Your task to perform on an android device: change timer sound Image 0: 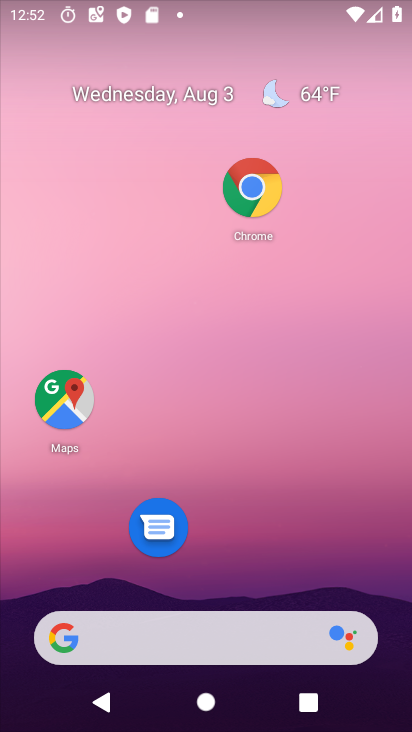
Step 0: drag from (214, 569) to (220, 32)
Your task to perform on an android device: change timer sound Image 1: 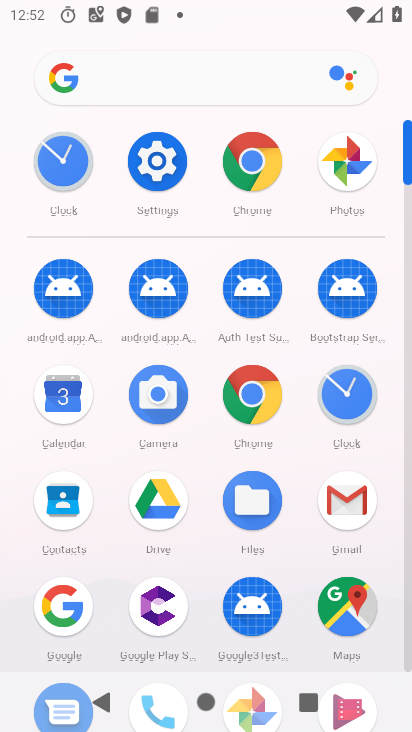
Step 1: click (161, 179)
Your task to perform on an android device: change timer sound Image 2: 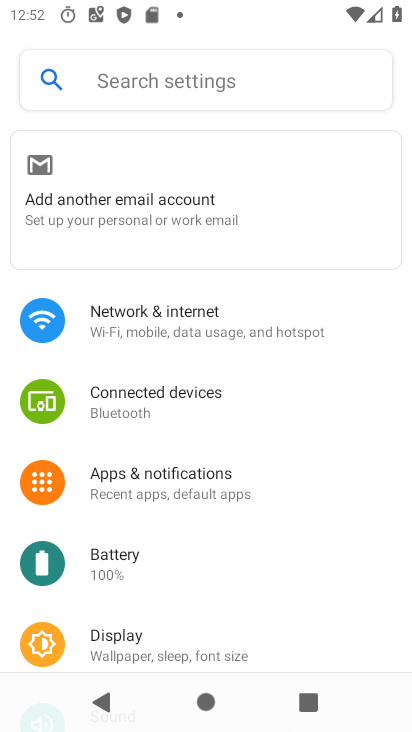
Step 2: press home button
Your task to perform on an android device: change timer sound Image 3: 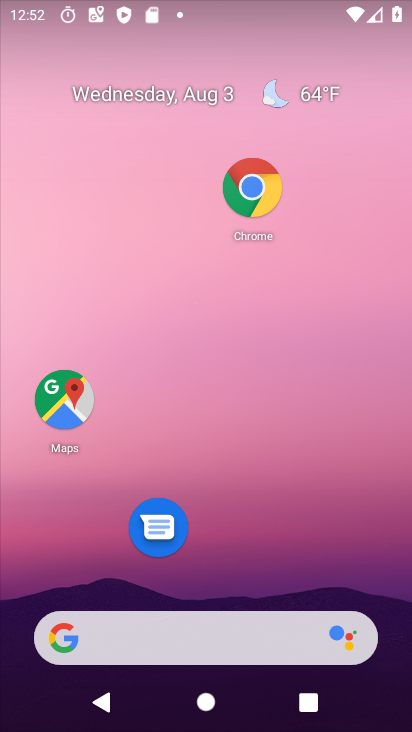
Step 3: drag from (263, 547) to (275, 152)
Your task to perform on an android device: change timer sound Image 4: 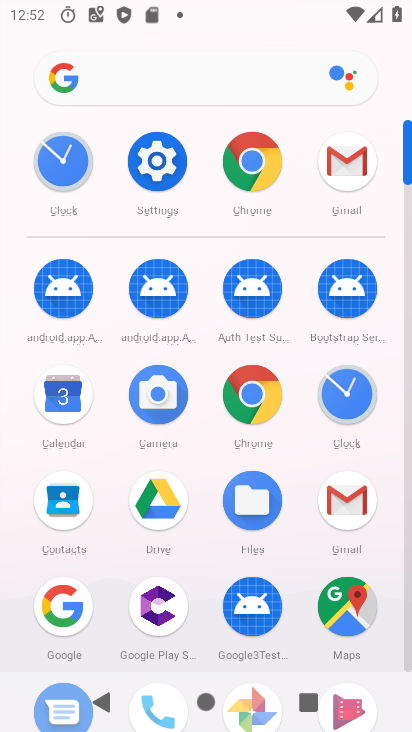
Step 4: drag from (231, 568) to (242, 381)
Your task to perform on an android device: change timer sound Image 5: 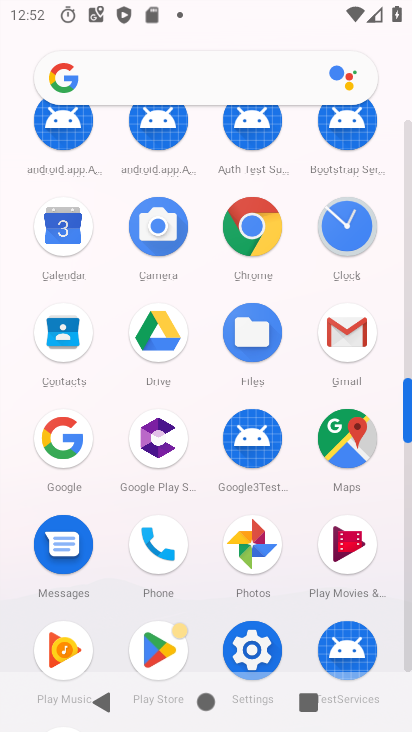
Step 5: click (369, 223)
Your task to perform on an android device: change timer sound Image 6: 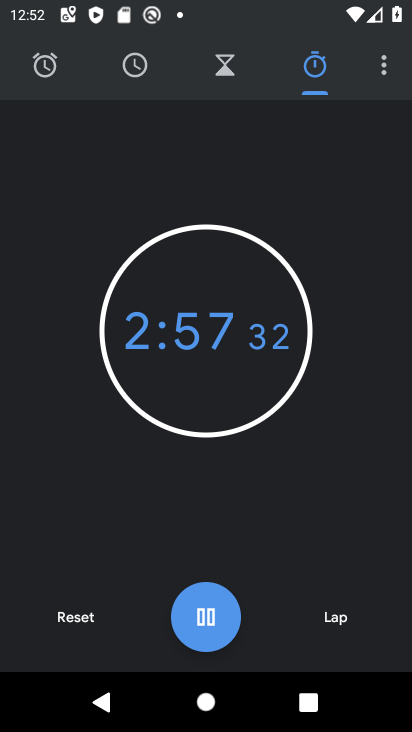
Step 6: click (75, 612)
Your task to perform on an android device: change timer sound Image 7: 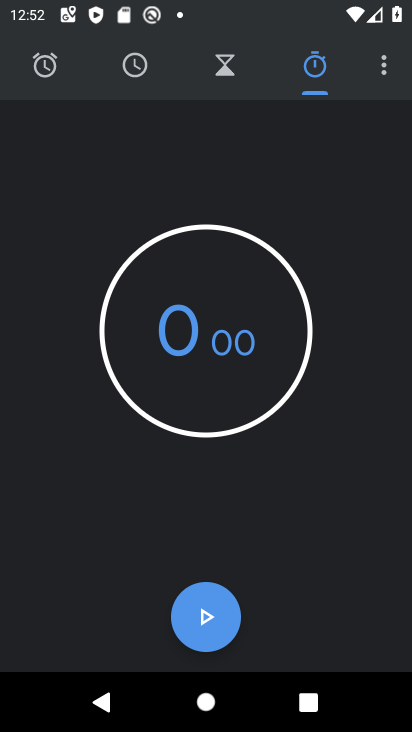
Step 7: click (380, 65)
Your task to perform on an android device: change timer sound Image 8: 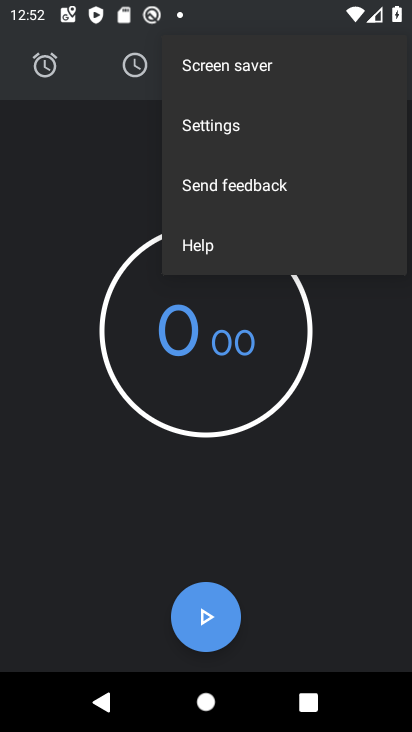
Step 8: click (215, 112)
Your task to perform on an android device: change timer sound Image 9: 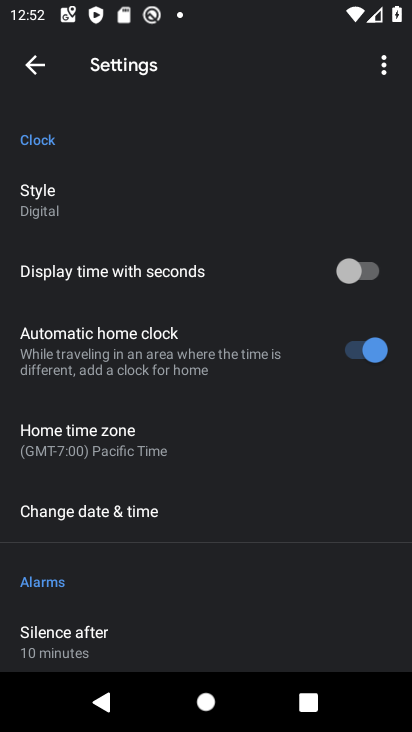
Step 9: drag from (100, 578) to (152, 279)
Your task to perform on an android device: change timer sound Image 10: 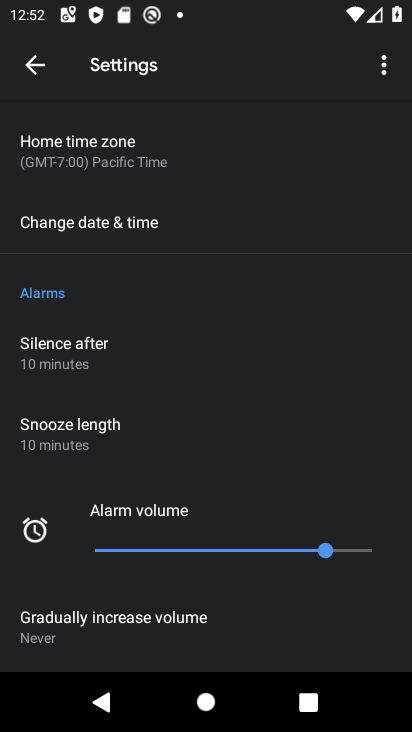
Step 10: drag from (133, 523) to (173, 263)
Your task to perform on an android device: change timer sound Image 11: 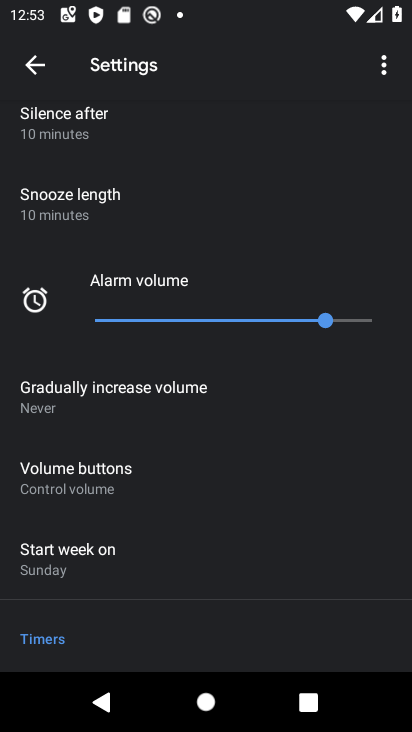
Step 11: drag from (121, 512) to (127, 271)
Your task to perform on an android device: change timer sound Image 12: 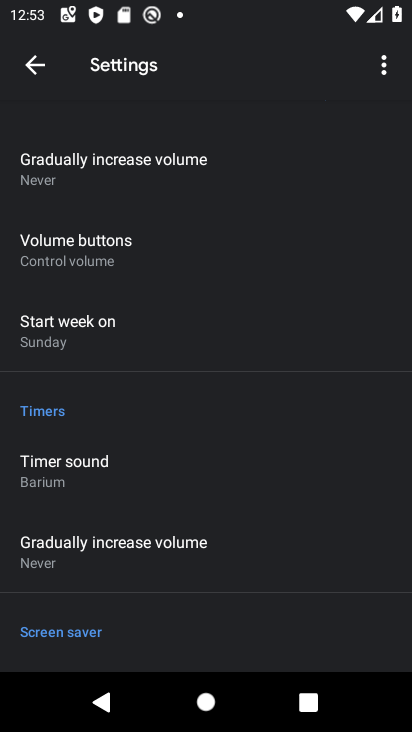
Step 12: click (88, 478)
Your task to perform on an android device: change timer sound Image 13: 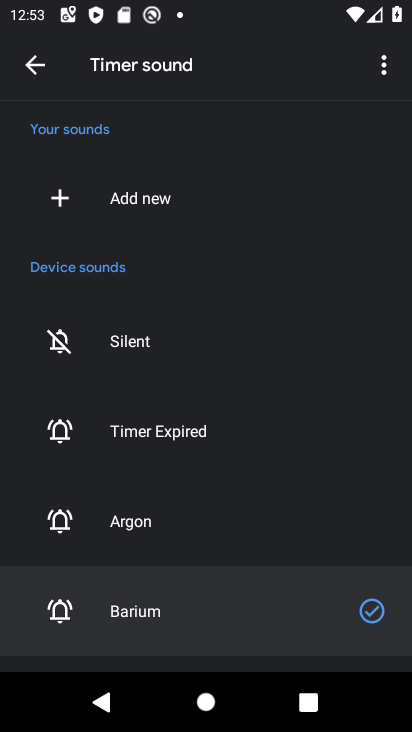
Step 13: click (141, 434)
Your task to perform on an android device: change timer sound Image 14: 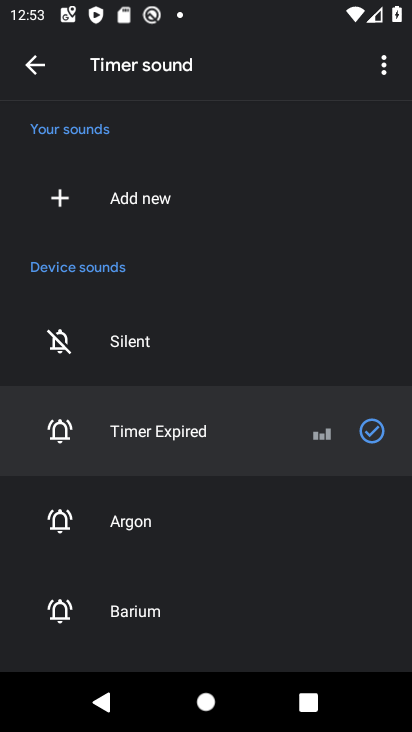
Step 14: task complete